Your task to perform on an android device: snooze an email in the gmail app Image 0: 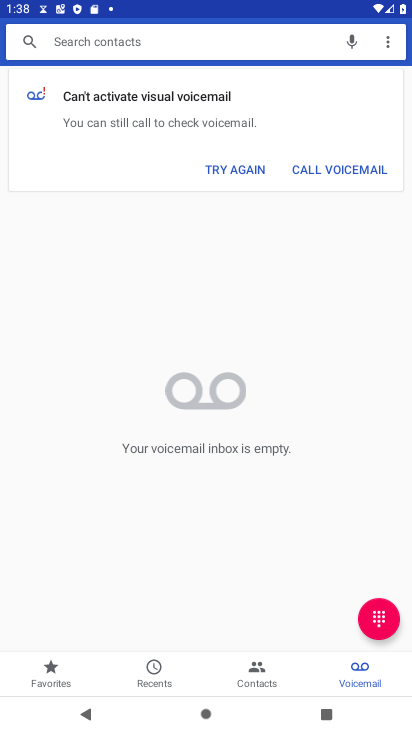
Step 0: press back button
Your task to perform on an android device: snooze an email in the gmail app Image 1: 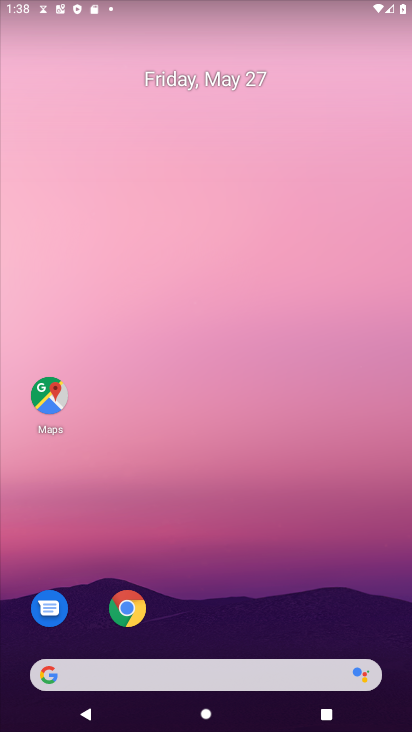
Step 1: drag from (237, 636) to (277, 68)
Your task to perform on an android device: snooze an email in the gmail app Image 2: 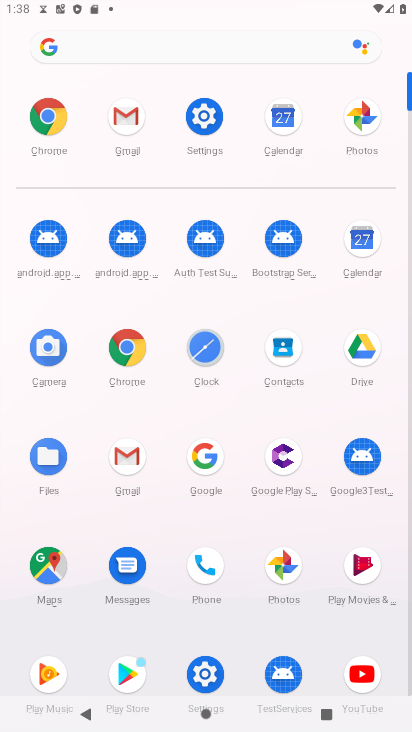
Step 2: click (130, 114)
Your task to perform on an android device: snooze an email in the gmail app Image 3: 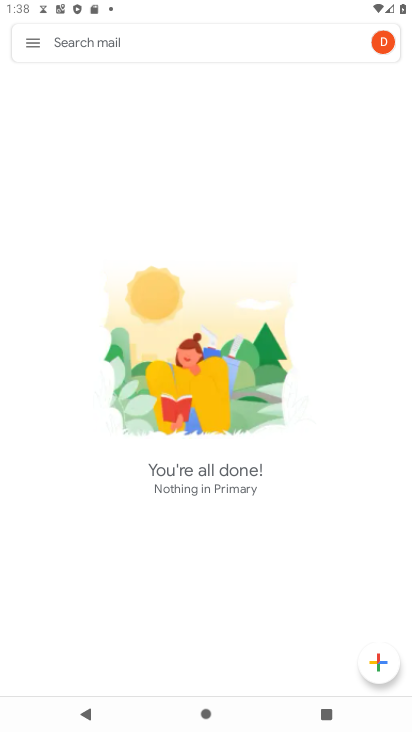
Step 3: click (26, 39)
Your task to perform on an android device: snooze an email in the gmail app Image 4: 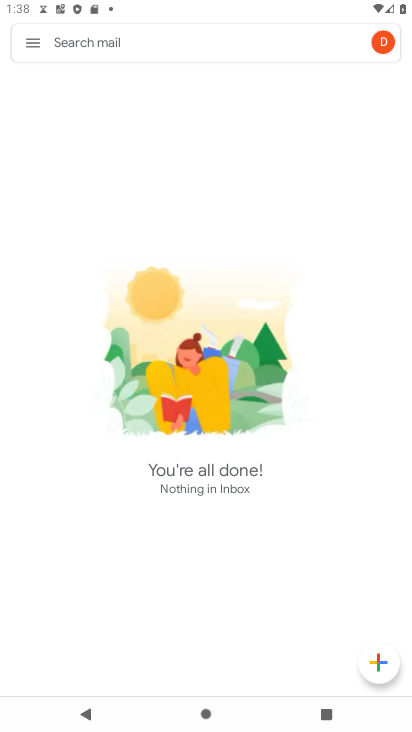
Step 4: click (32, 40)
Your task to perform on an android device: snooze an email in the gmail app Image 5: 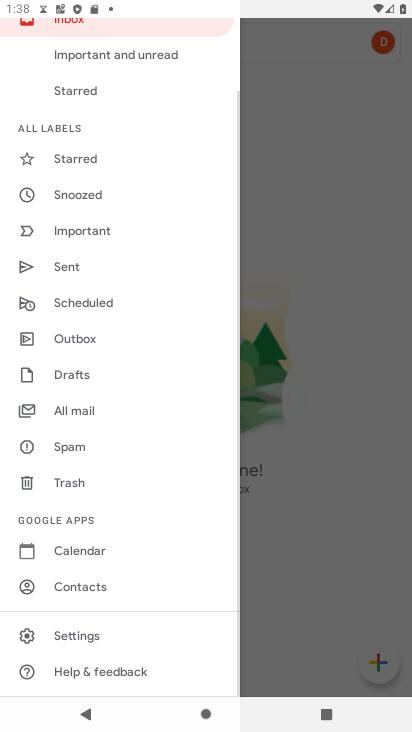
Step 5: click (91, 419)
Your task to perform on an android device: snooze an email in the gmail app Image 6: 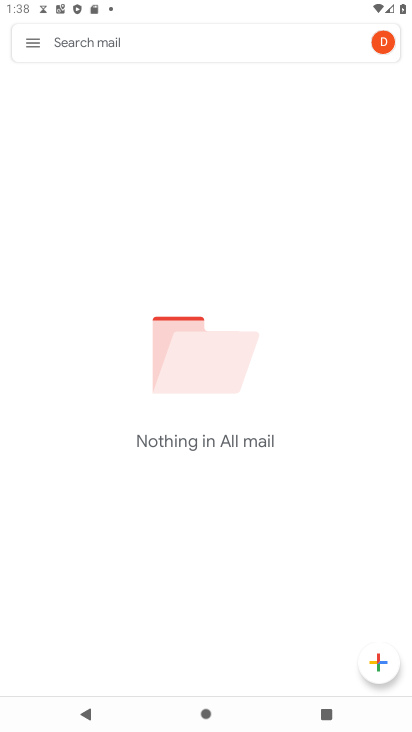
Step 6: task complete